Your task to perform on an android device: Clear all items from cart on costco. Search for razer blade on costco, select the first entry, and add it to the cart. Image 0: 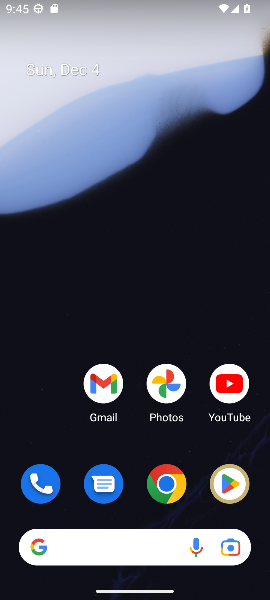
Step 0: click (168, 489)
Your task to perform on an android device: Clear all items from cart on costco. Search for razer blade on costco, select the first entry, and add it to the cart. Image 1: 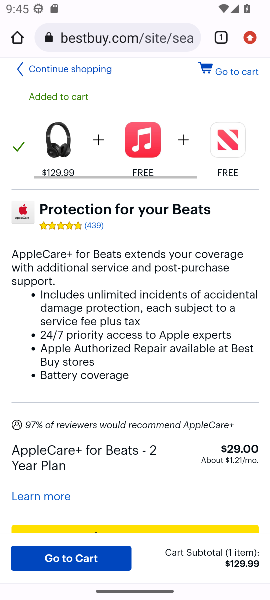
Step 1: click (109, 40)
Your task to perform on an android device: Clear all items from cart on costco. Search for razer blade on costco, select the first entry, and add it to the cart. Image 2: 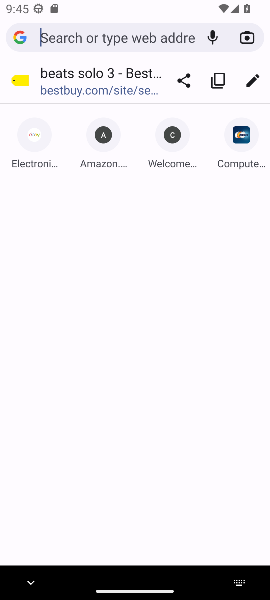
Step 2: type "costco.com"
Your task to perform on an android device: Clear all items from cart on costco. Search for razer blade on costco, select the first entry, and add it to the cart. Image 3: 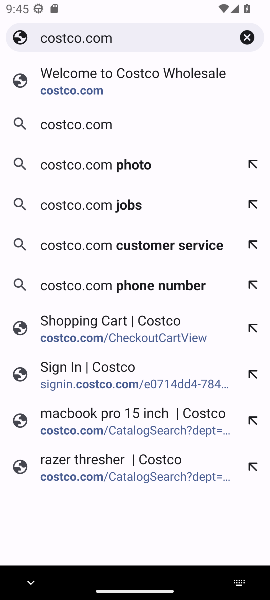
Step 3: click (72, 85)
Your task to perform on an android device: Clear all items from cart on costco. Search for razer blade on costco, select the first entry, and add it to the cart. Image 4: 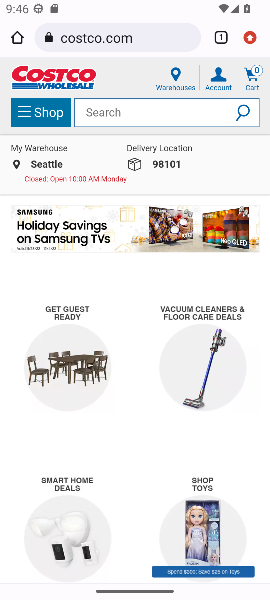
Step 4: click (255, 79)
Your task to perform on an android device: Clear all items from cart on costco. Search for razer blade on costco, select the first entry, and add it to the cart. Image 5: 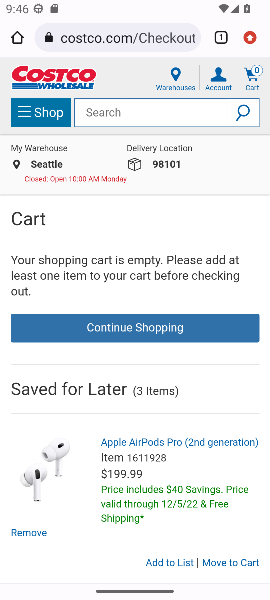
Step 5: click (91, 112)
Your task to perform on an android device: Clear all items from cart on costco. Search for razer blade on costco, select the first entry, and add it to the cart. Image 6: 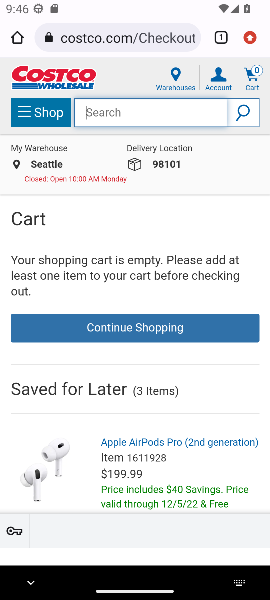
Step 6: type "razer blade"
Your task to perform on an android device: Clear all items from cart on costco. Search for razer blade on costco, select the first entry, and add it to the cart. Image 7: 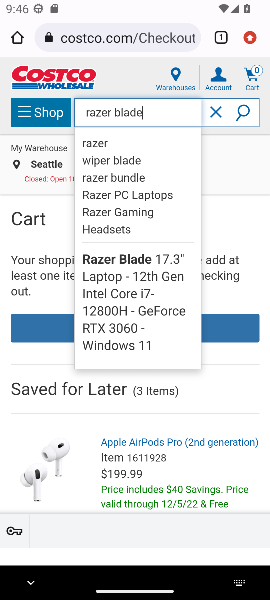
Step 7: click (240, 115)
Your task to perform on an android device: Clear all items from cart on costco. Search for razer blade on costco, select the first entry, and add it to the cart. Image 8: 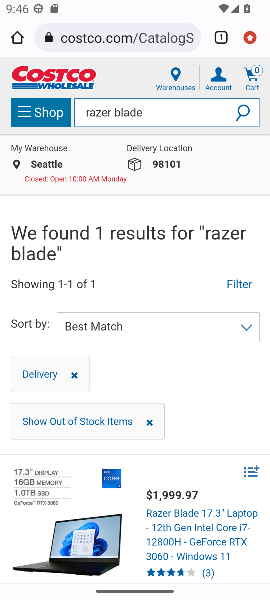
Step 8: drag from (129, 444) to (138, 326)
Your task to perform on an android device: Clear all items from cart on costco. Search for razer blade on costco, select the first entry, and add it to the cart. Image 9: 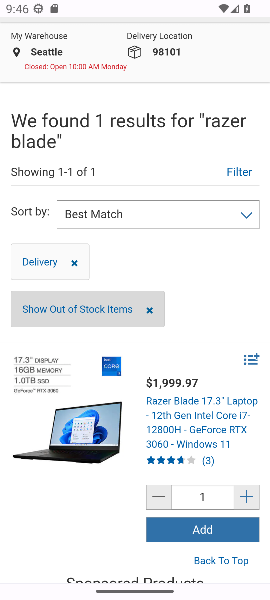
Step 9: click (209, 534)
Your task to perform on an android device: Clear all items from cart on costco. Search for razer blade on costco, select the first entry, and add it to the cart. Image 10: 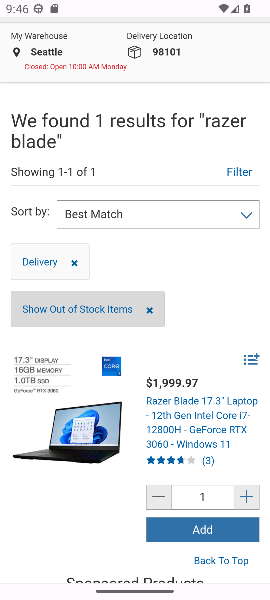
Step 10: task complete